Your task to perform on an android device: turn off sleep mode Image 0: 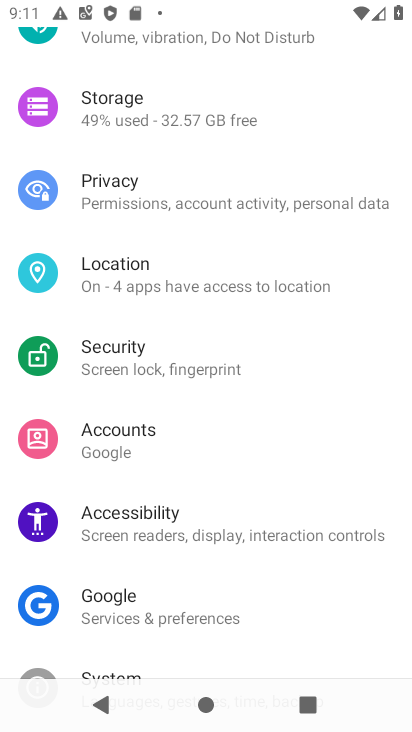
Step 0: drag from (233, 260) to (234, 527)
Your task to perform on an android device: turn off sleep mode Image 1: 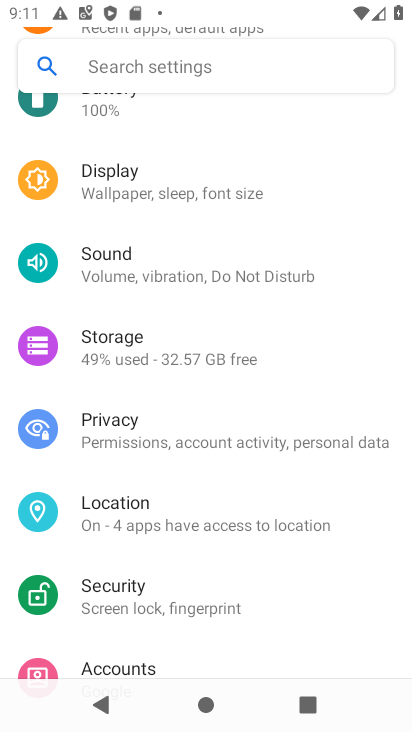
Step 1: click (204, 193)
Your task to perform on an android device: turn off sleep mode Image 2: 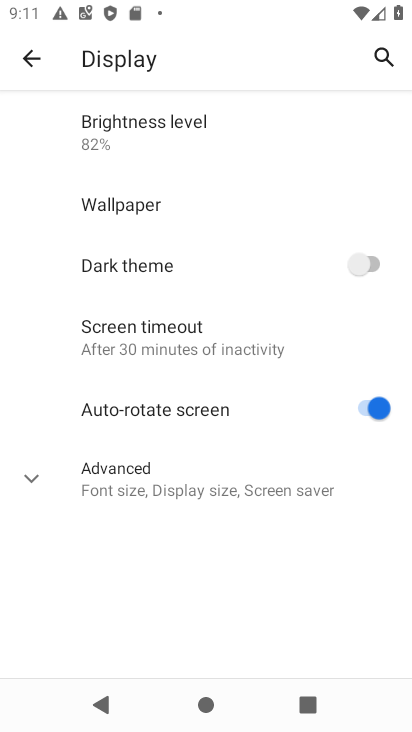
Step 2: click (37, 475)
Your task to perform on an android device: turn off sleep mode Image 3: 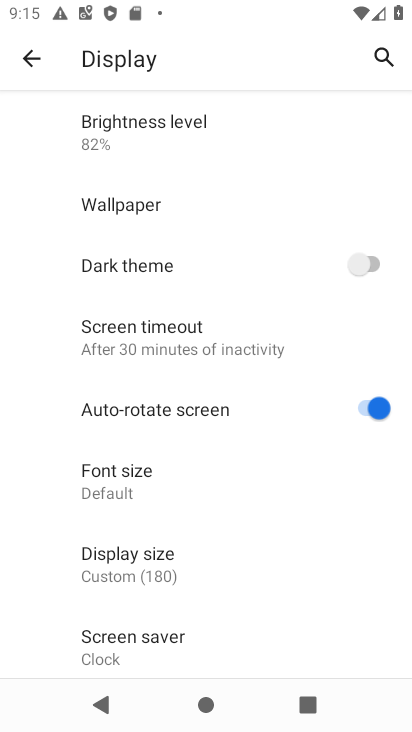
Step 3: task complete